Your task to perform on an android device: Go to Amazon Image 0: 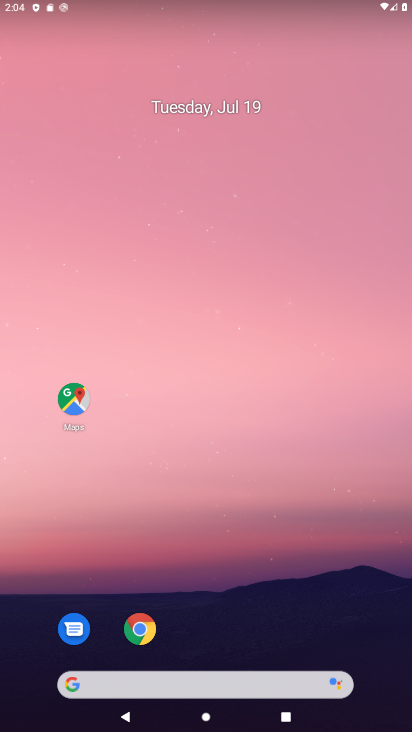
Step 0: click (133, 634)
Your task to perform on an android device: Go to Amazon Image 1: 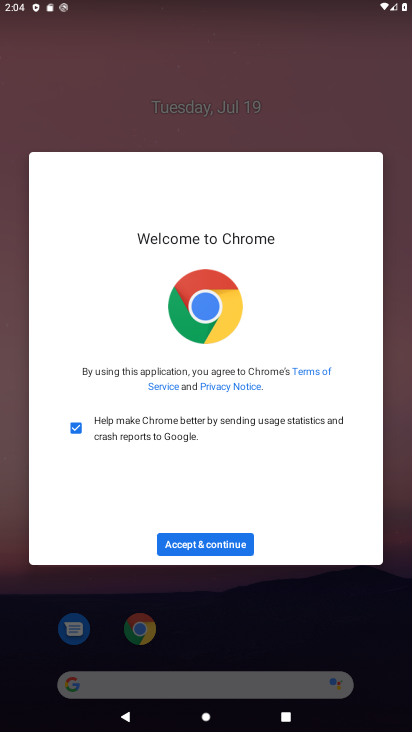
Step 1: click (238, 568)
Your task to perform on an android device: Go to Amazon Image 2: 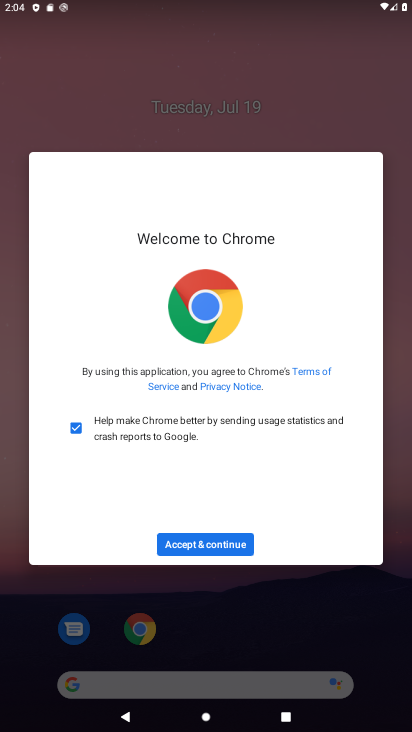
Step 2: click (238, 552)
Your task to perform on an android device: Go to Amazon Image 3: 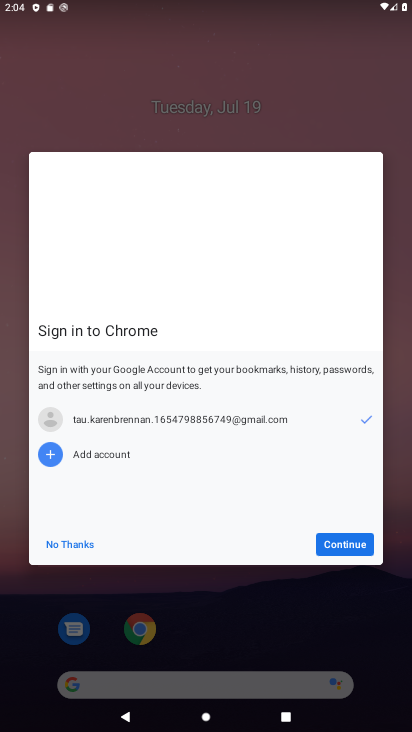
Step 3: click (342, 548)
Your task to perform on an android device: Go to Amazon Image 4: 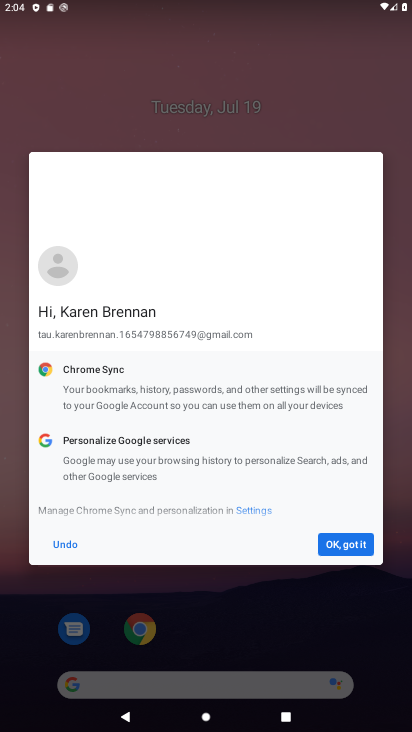
Step 4: click (342, 548)
Your task to perform on an android device: Go to Amazon Image 5: 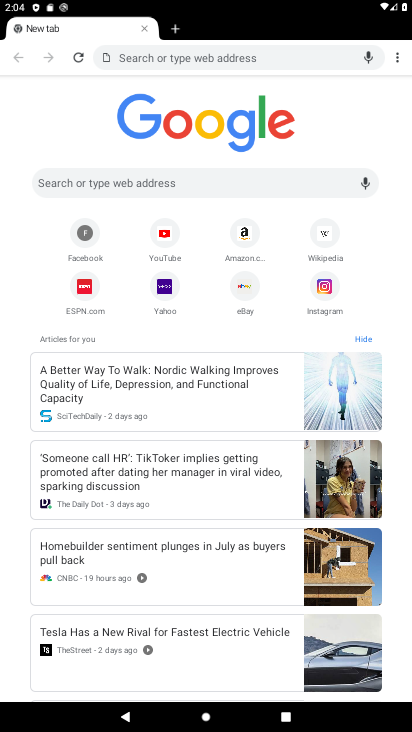
Step 5: click (253, 243)
Your task to perform on an android device: Go to Amazon Image 6: 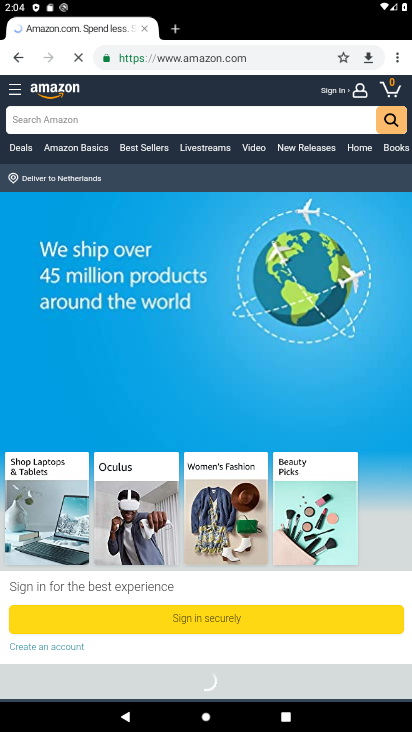
Step 6: task complete